Your task to perform on an android device: turn on priority inbox in the gmail app Image 0: 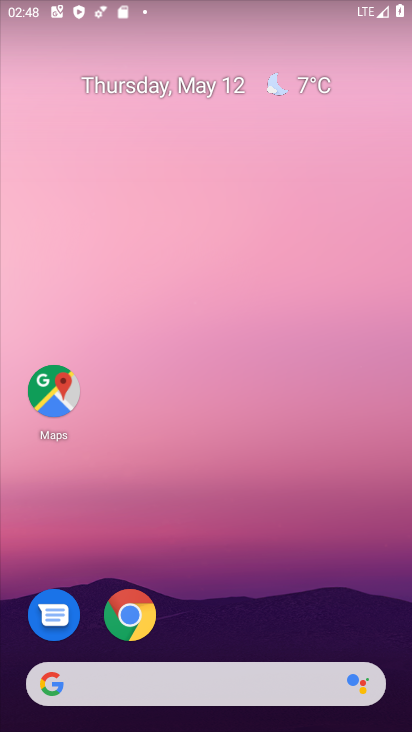
Step 0: drag from (175, 675) to (166, 273)
Your task to perform on an android device: turn on priority inbox in the gmail app Image 1: 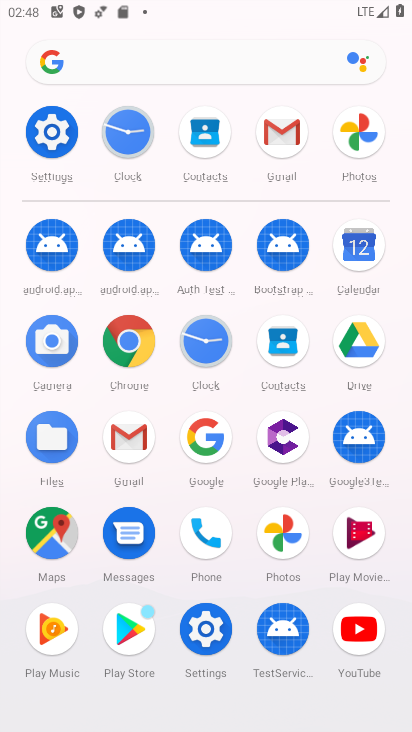
Step 1: click (139, 422)
Your task to perform on an android device: turn on priority inbox in the gmail app Image 2: 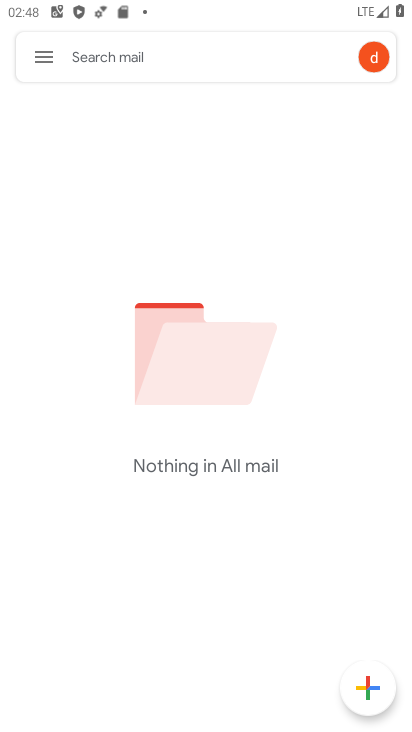
Step 2: click (34, 66)
Your task to perform on an android device: turn on priority inbox in the gmail app Image 3: 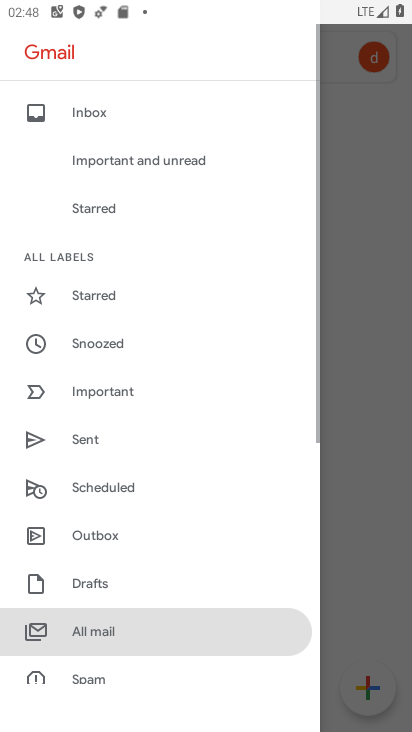
Step 3: drag from (159, 604) to (153, 210)
Your task to perform on an android device: turn on priority inbox in the gmail app Image 4: 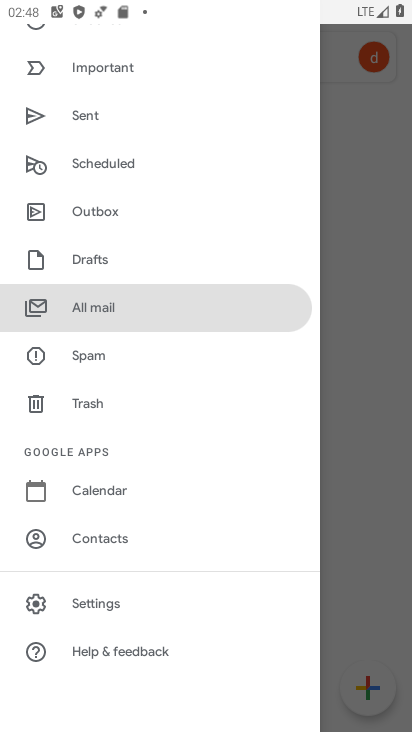
Step 4: click (86, 607)
Your task to perform on an android device: turn on priority inbox in the gmail app Image 5: 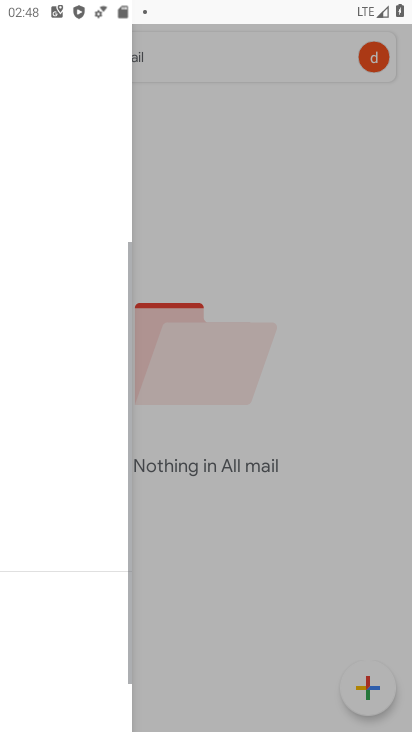
Step 5: click (86, 607)
Your task to perform on an android device: turn on priority inbox in the gmail app Image 6: 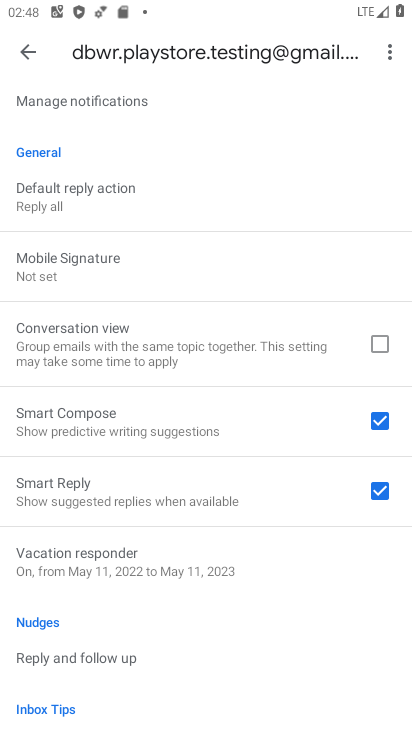
Step 6: drag from (138, 599) to (199, 620)
Your task to perform on an android device: turn on priority inbox in the gmail app Image 7: 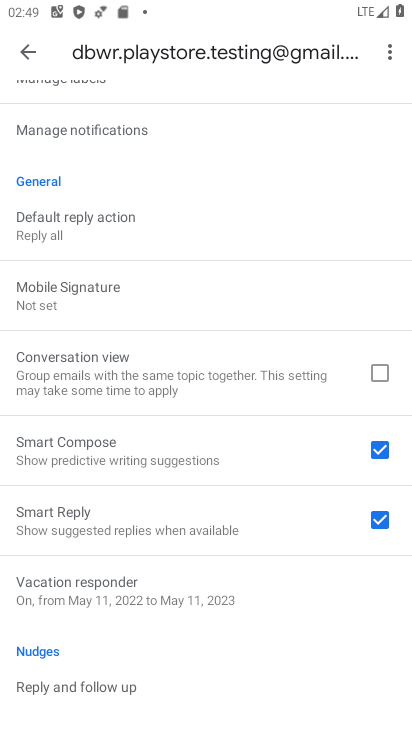
Step 7: drag from (121, 223) to (173, 501)
Your task to perform on an android device: turn on priority inbox in the gmail app Image 8: 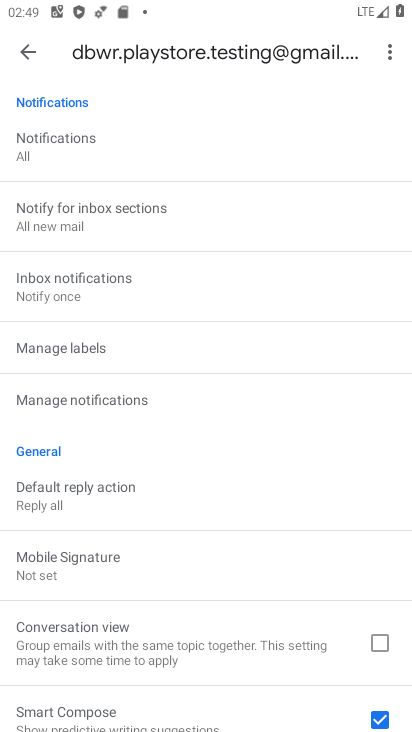
Step 8: drag from (93, 172) to (146, 502)
Your task to perform on an android device: turn on priority inbox in the gmail app Image 9: 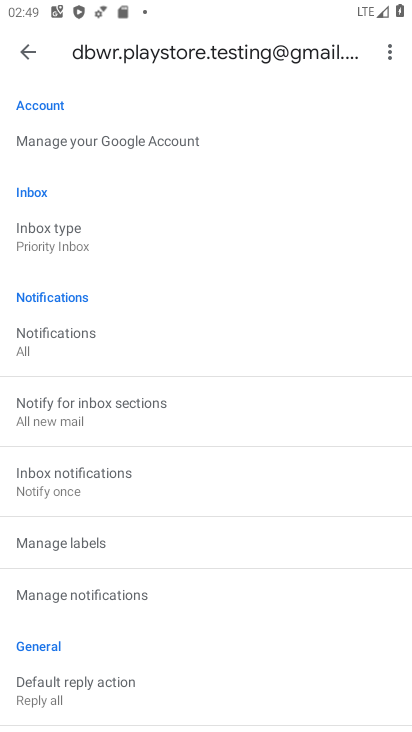
Step 9: click (132, 238)
Your task to perform on an android device: turn on priority inbox in the gmail app Image 10: 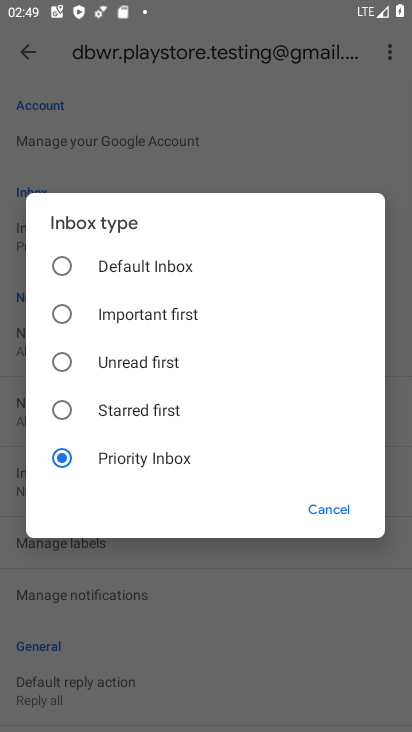
Step 10: click (149, 463)
Your task to perform on an android device: turn on priority inbox in the gmail app Image 11: 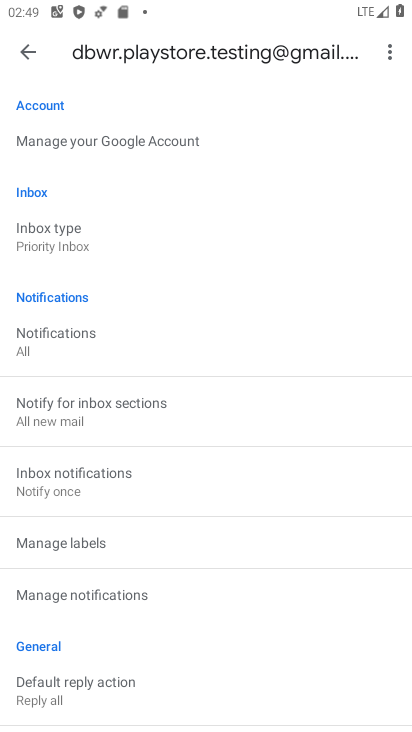
Step 11: task complete